Your task to perform on an android device: open app "Skype" Image 0: 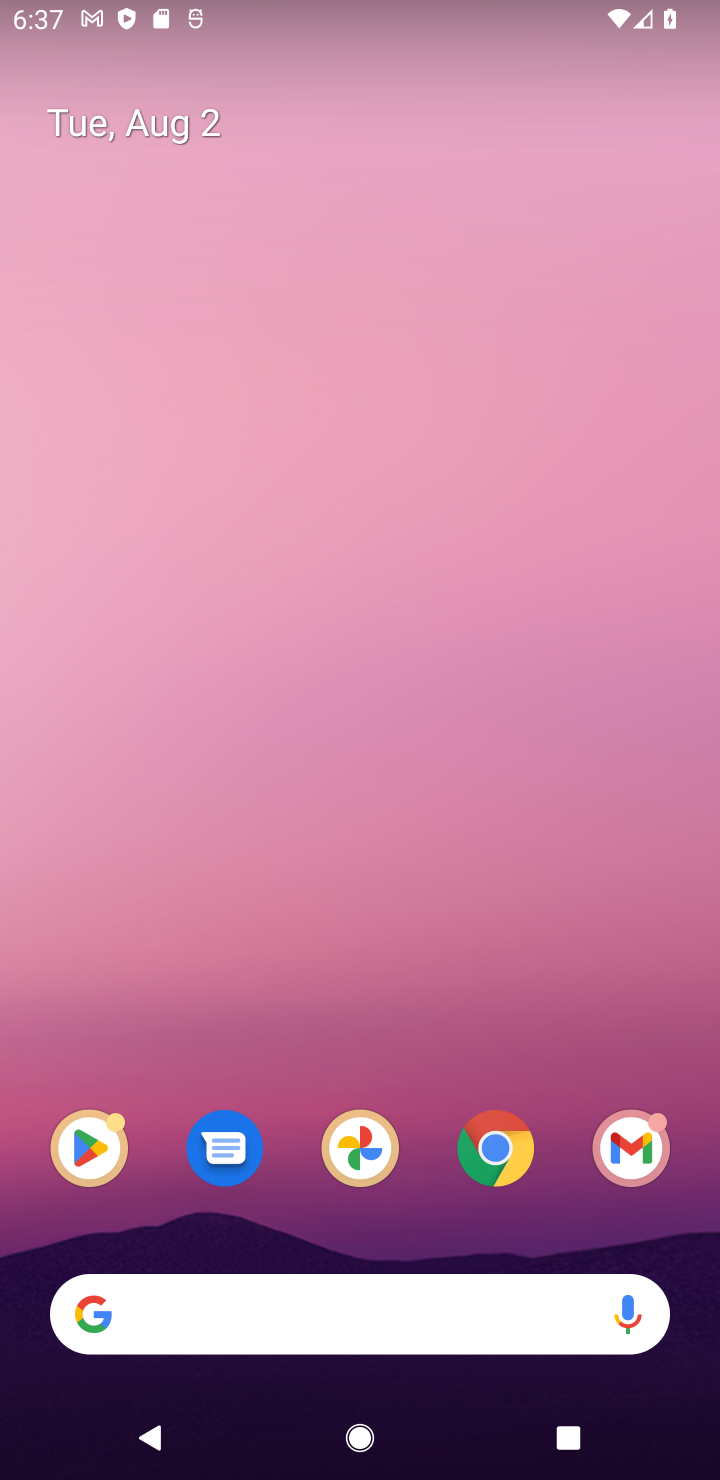
Step 0: drag from (636, 918) to (423, 16)
Your task to perform on an android device: open app "Skype" Image 1: 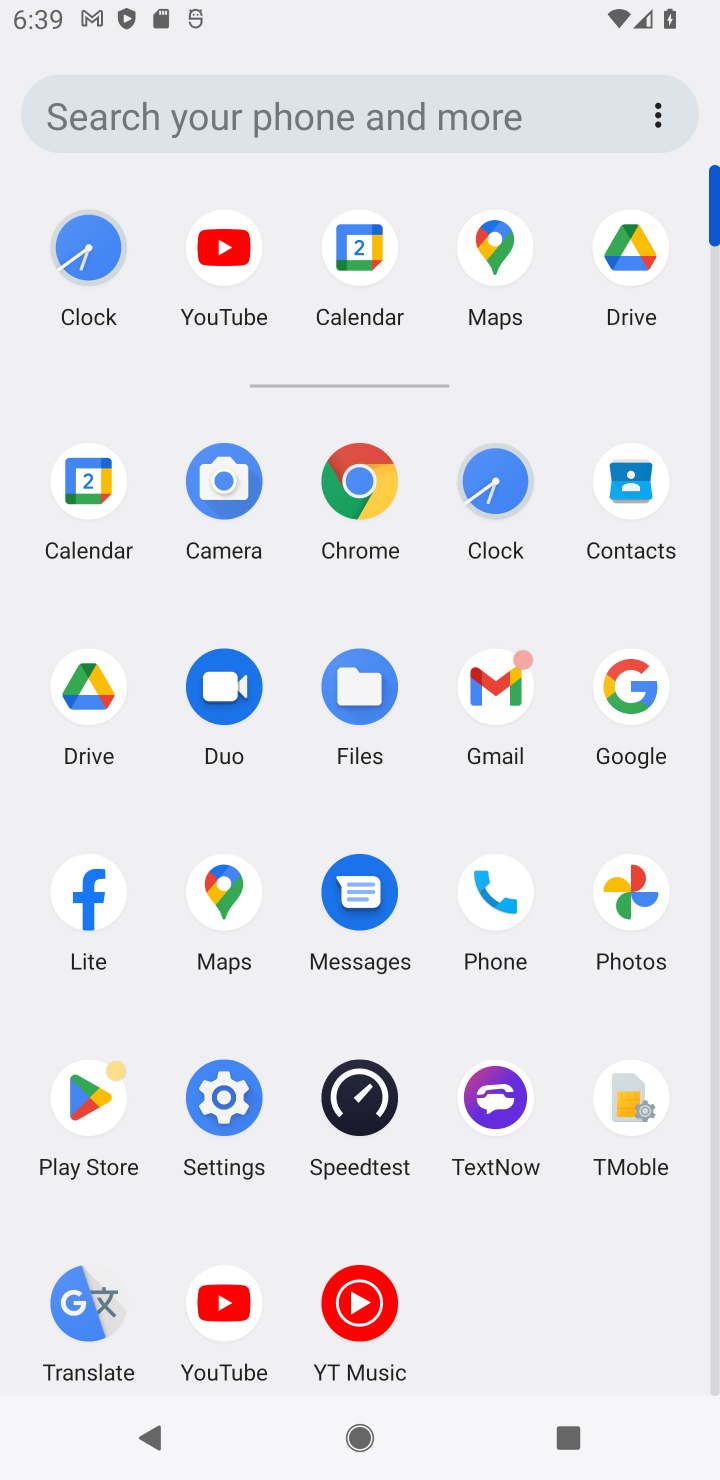
Step 1: click (82, 1052)
Your task to perform on an android device: open app "Skype" Image 2: 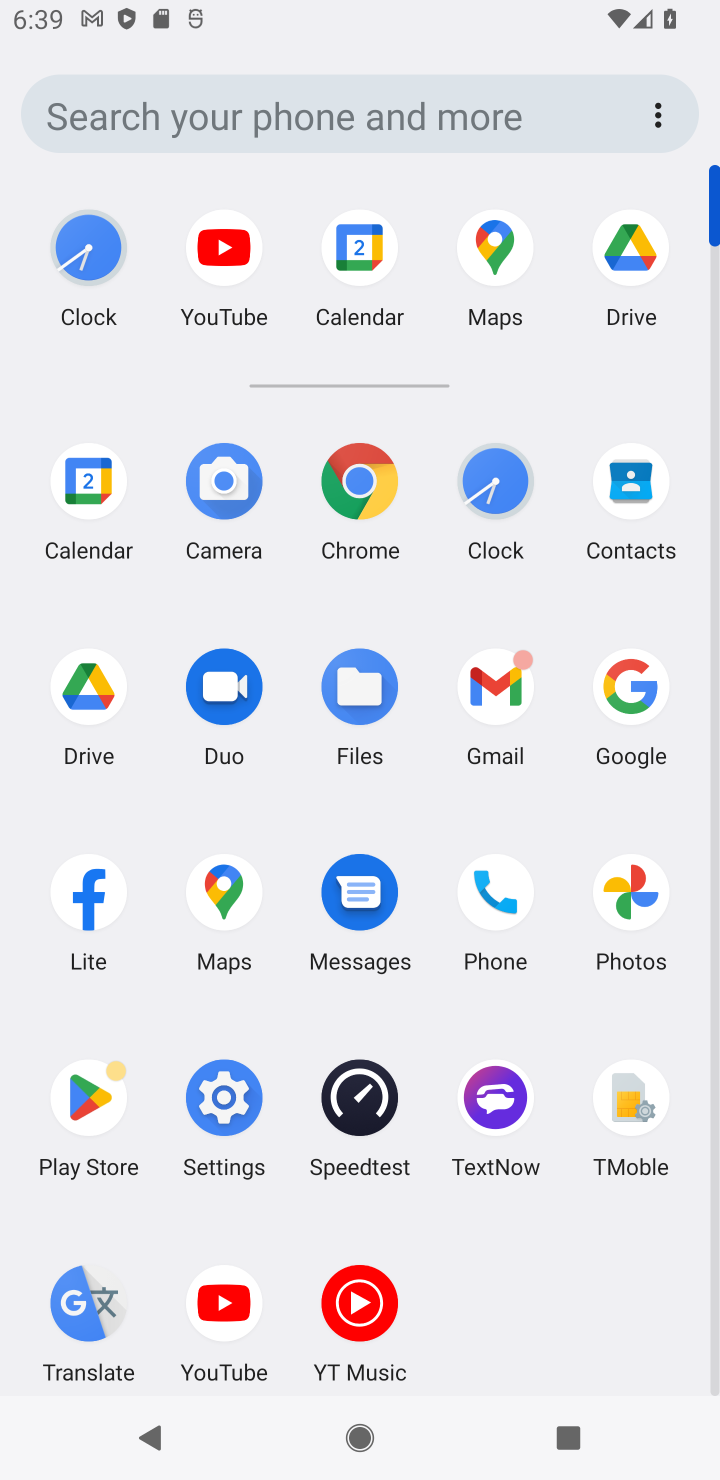
Step 2: click (89, 1070)
Your task to perform on an android device: open app "Skype" Image 3: 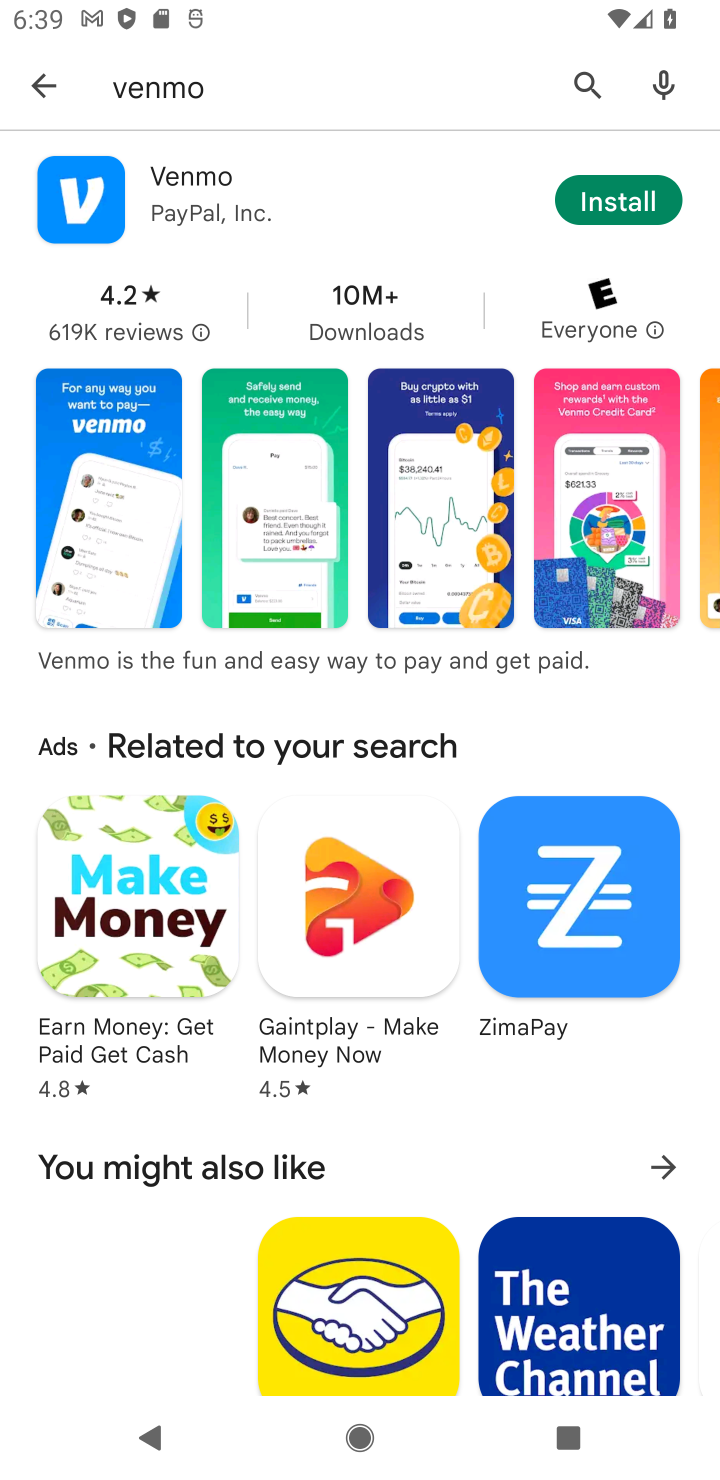
Step 3: press back button
Your task to perform on an android device: open app "Skype" Image 4: 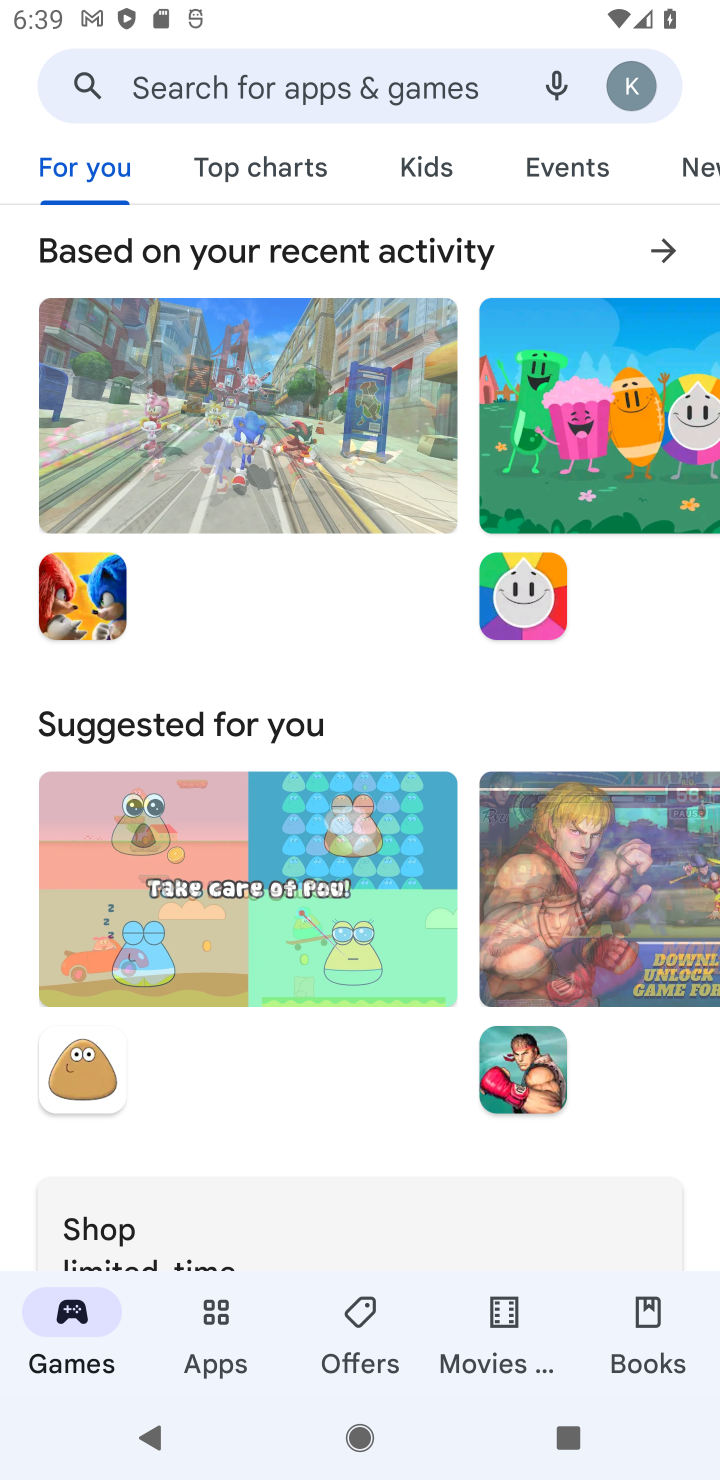
Step 4: click (206, 85)
Your task to perform on an android device: open app "Skype" Image 5: 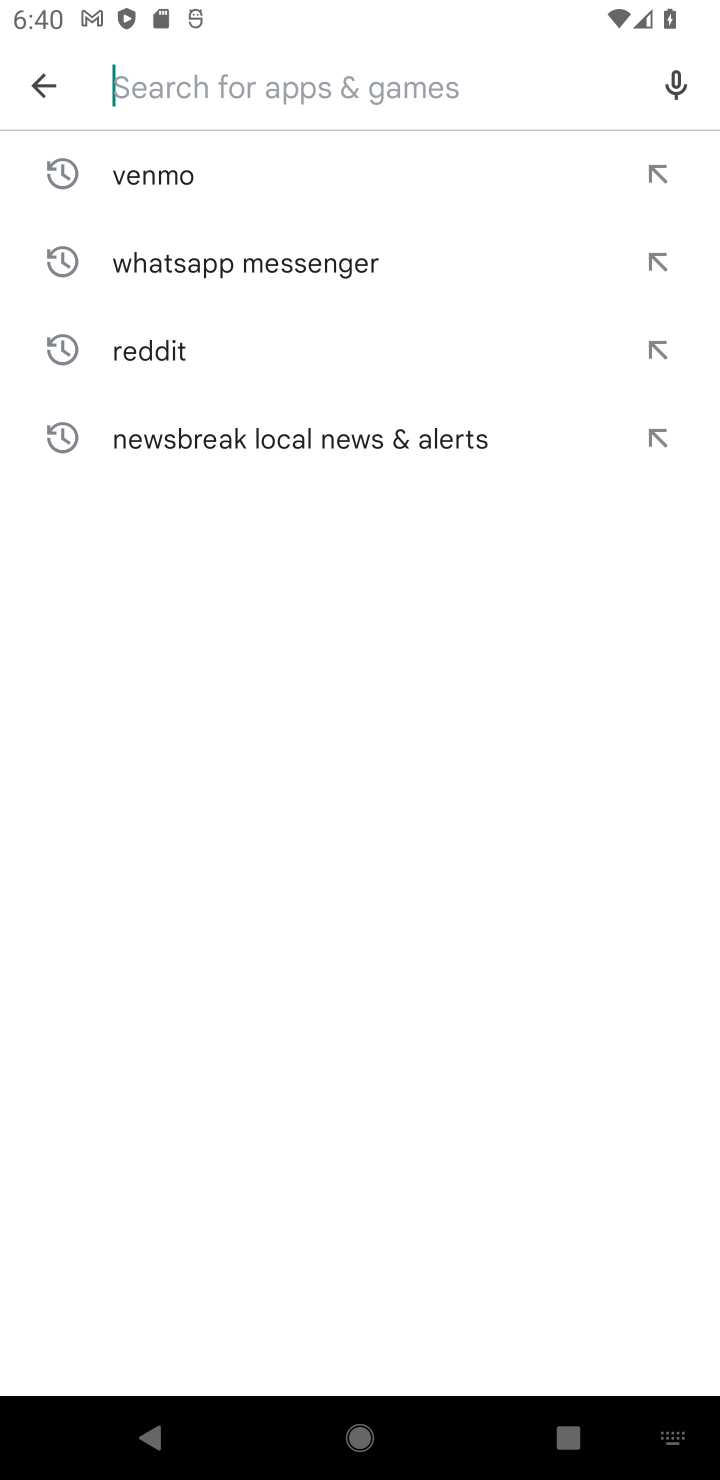
Step 5: type "Skype"
Your task to perform on an android device: open app "Skype" Image 6: 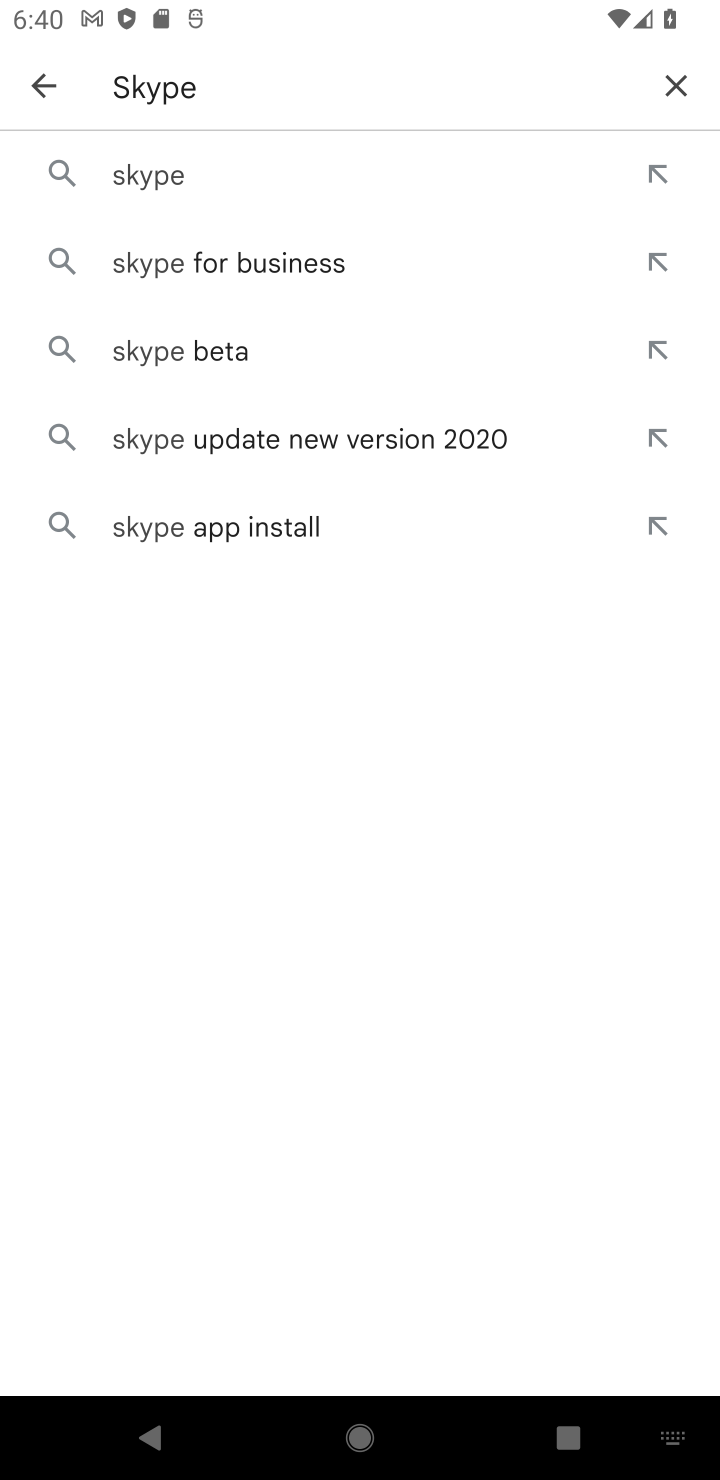
Step 6: click (193, 193)
Your task to perform on an android device: open app "Skype" Image 7: 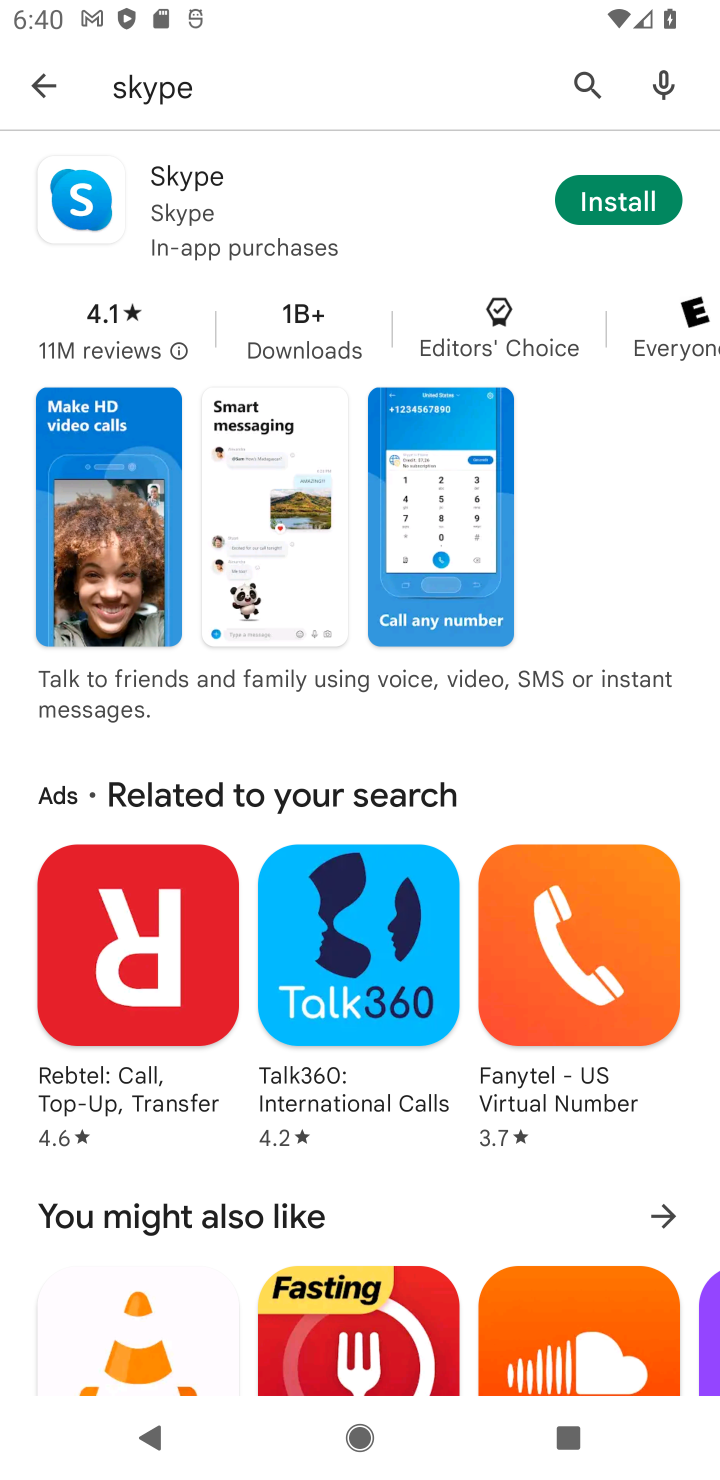
Step 7: task complete